Your task to perform on an android device: allow cookies in the chrome app Image 0: 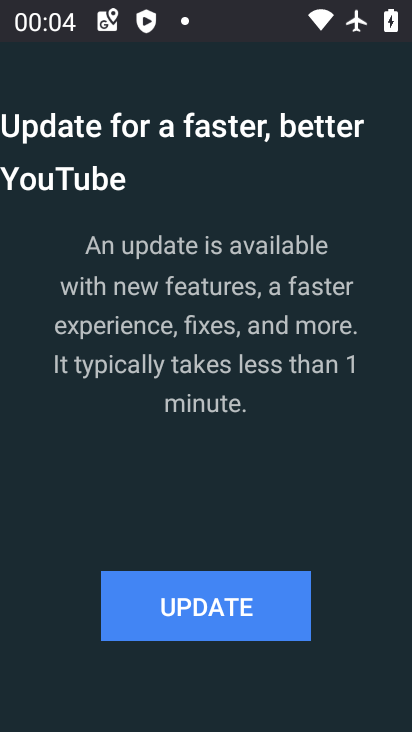
Step 0: press home button
Your task to perform on an android device: allow cookies in the chrome app Image 1: 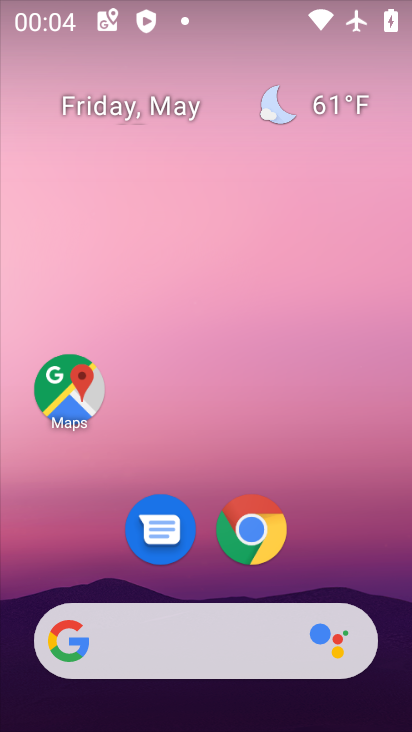
Step 1: click (251, 534)
Your task to perform on an android device: allow cookies in the chrome app Image 2: 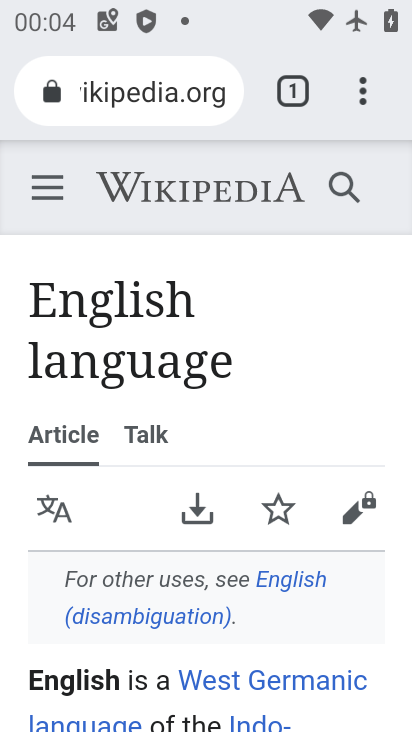
Step 2: press home button
Your task to perform on an android device: allow cookies in the chrome app Image 3: 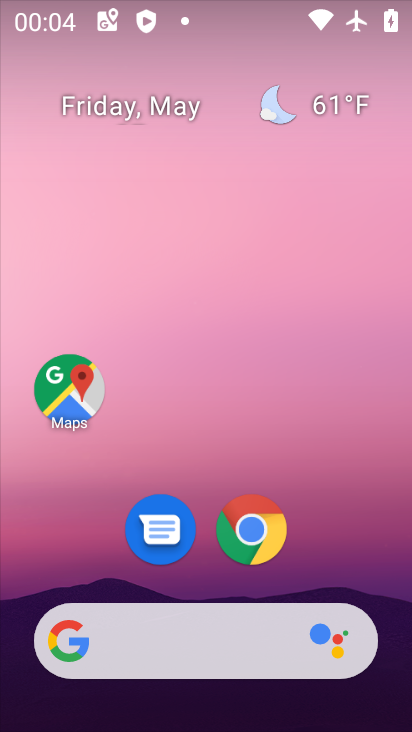
Step 3: click (258, 532)
Your task to perform on an android device: allow cookies in the chrome app Image 4: 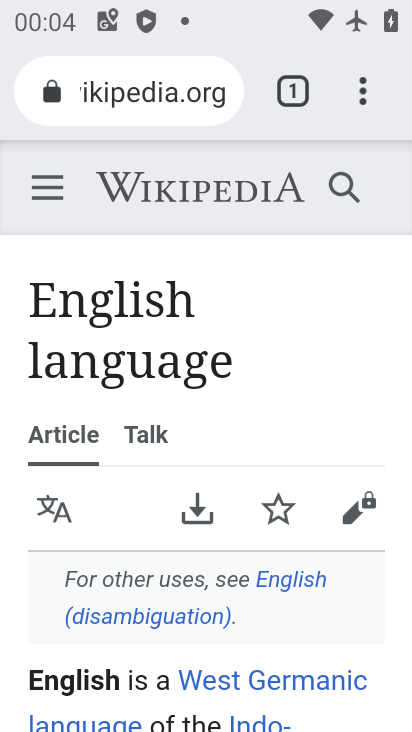
Step 4: click (363, 68)
Your task to perform on an android device: allow cookies in the chrome app Image 5: 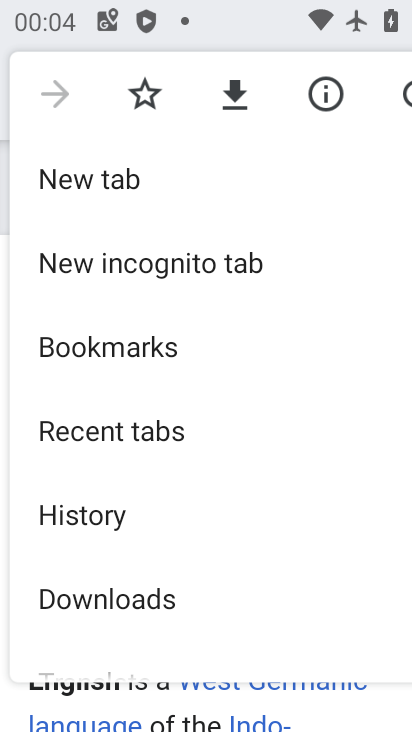
Step 5: drag from (201, 552) to (233, 308)
Your task to perform on an android device: allow cookies in the chrome app Image 6: 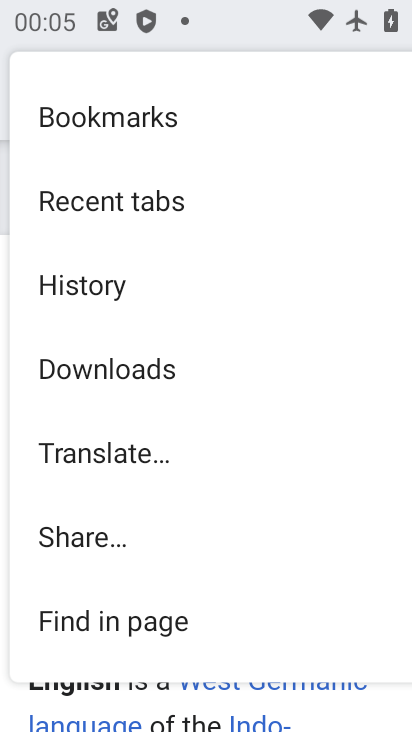
Step 6: drag from (213, 542) to (219, 270)
Your task to perform on an android device: allow cookies in the chrome app Image 7: 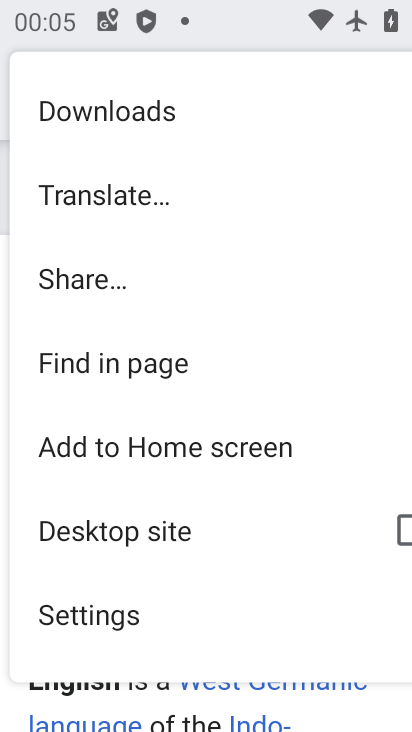
Step 7: click (141, 633)
Your task to perform on an android device: allow cookies in the chrome app Image 8: 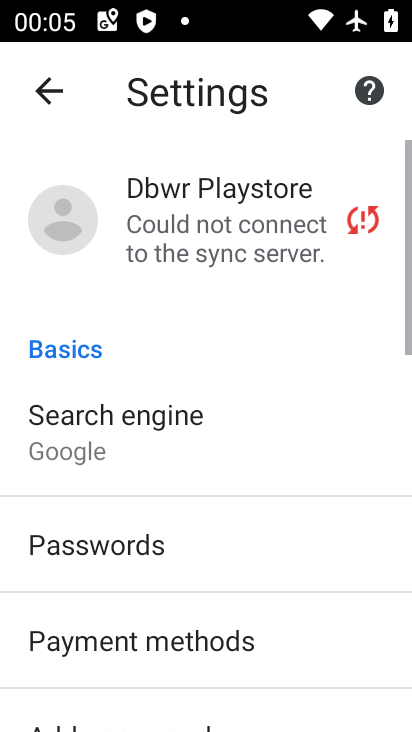
Step 8: drag from (201, 618) to (225, 205)
Your task to perform on an android device: allow cookies in the chrome app Image 9: 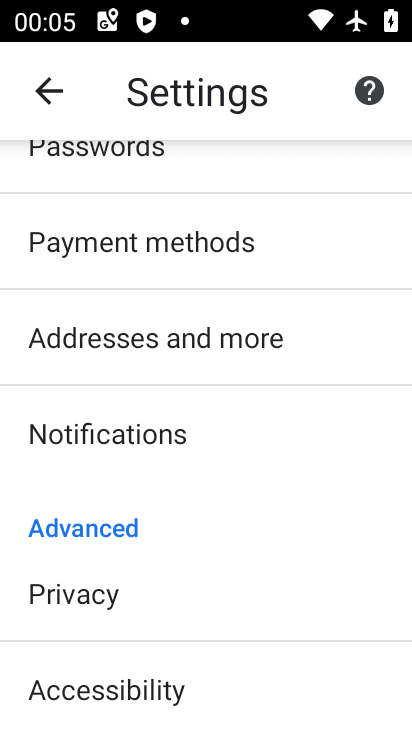
Step 9: drag from (179, 674) to (202, 329)
Your task to perform on an android device: allow cookies in the chrome app Image 10: 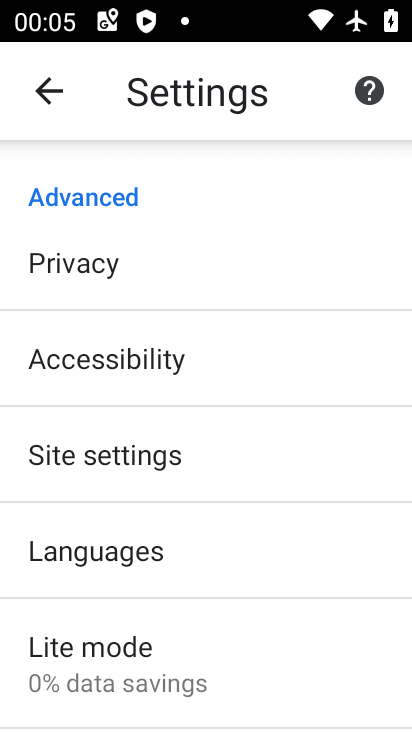
Step 10: click (268, 464)
Your task to perform on an android device: allow cookies in the chrome app Image 11: 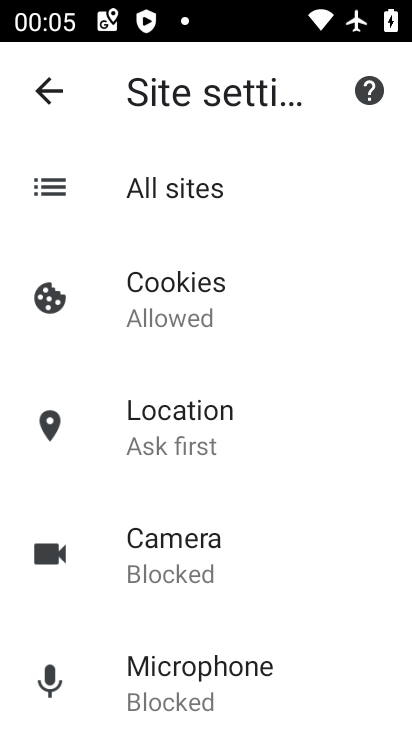
Step 11: drag from (238, 633) to (246, 303)
Your task to perform on an android device: allow cookies in the chrome app Image 12: 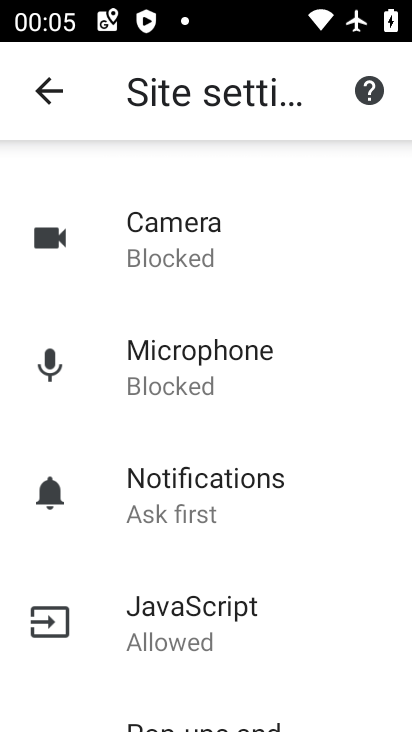
Step 12: drag from (200, 379) to (187, 703)
Your task to perform on an android device: allow cookies in the chrome app Image 13: 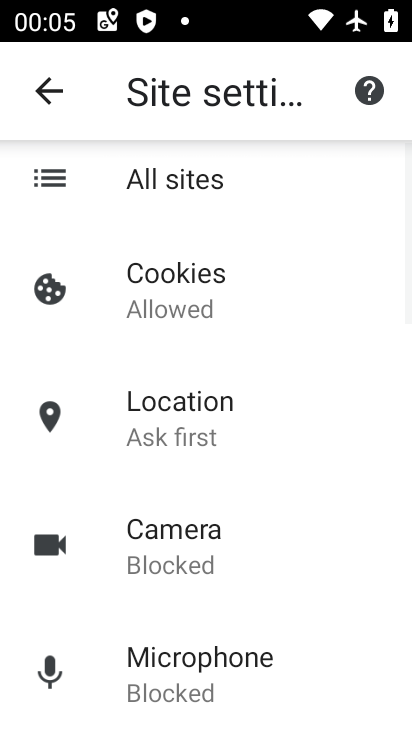
Step 13: click (183, 200)
Your task to perform on an android device: allow cookies in the chrome app Image 14: 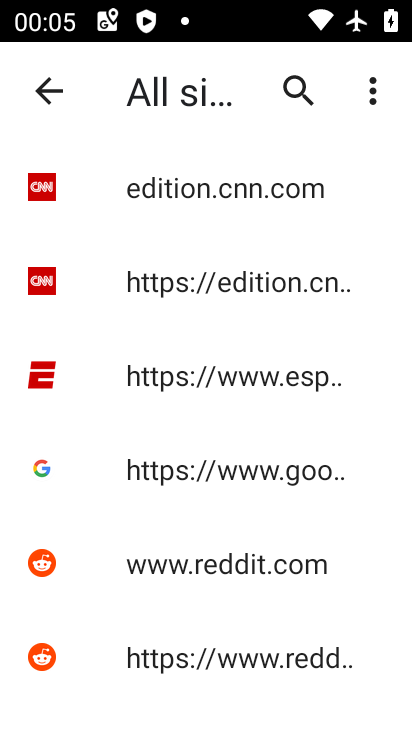
Step 14: task complete